Your task to perform on an android device: Go to CNN.com Image 0: 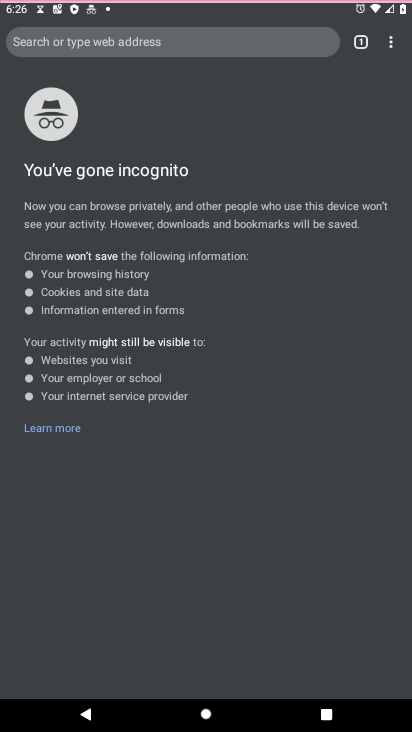
Step 0: press home button
Your task to perform on an android device: Go to CNN.com Image 1: 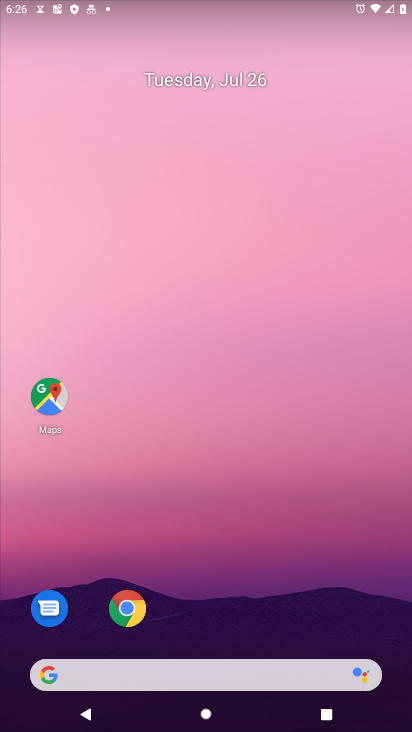
Step 1: click (50, 670)
Your task to perform on an android device: Go to CNN.com Image 2: 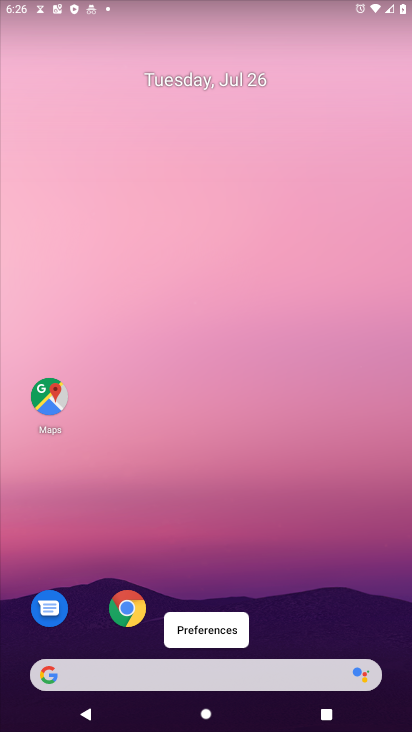
Step 2: click (49, 673)
Your task to perform on an android device: Go to CNN.com Image 3: 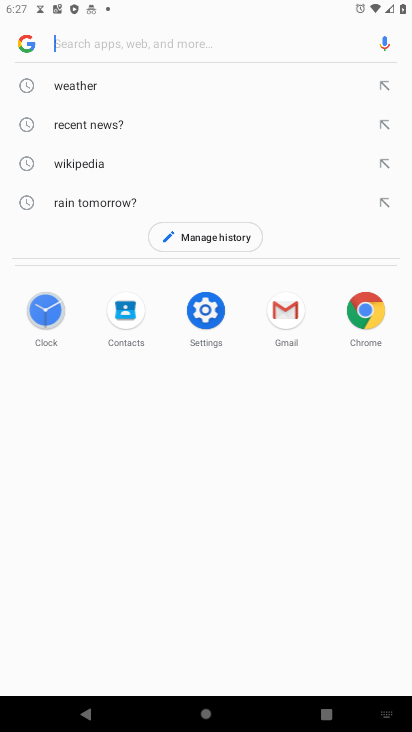
Step 3: type "CNN.com"
Your task to perform on an android device: Go to CNN.com Image 4: 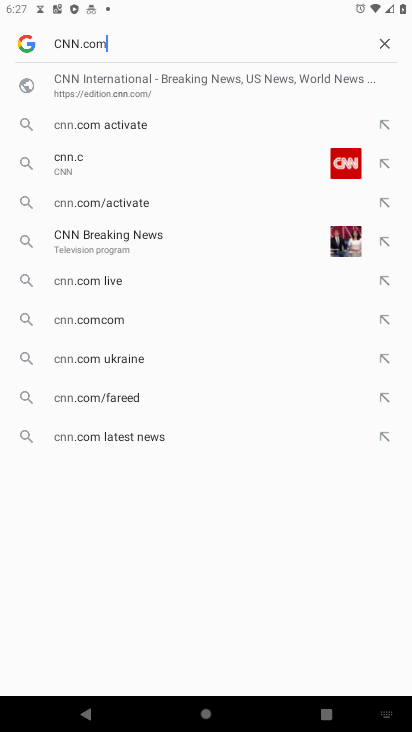
Step 4: press enter
Your task to perform on an android device: Go to CNN.com Image 5: 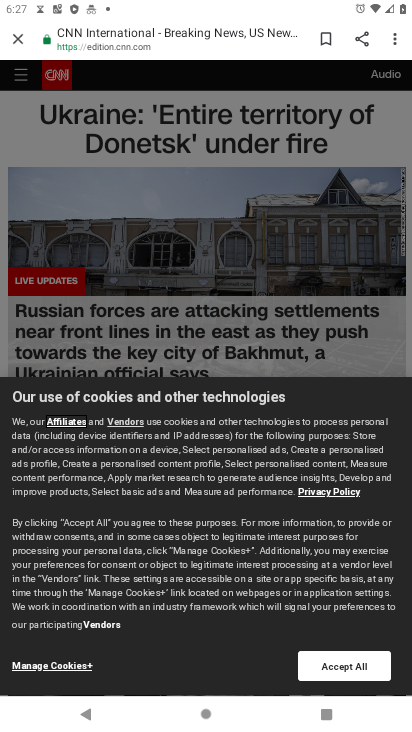
Step 5: task complete